Your task to perform on an android device: Is it going to rain this weekend? Image 0: 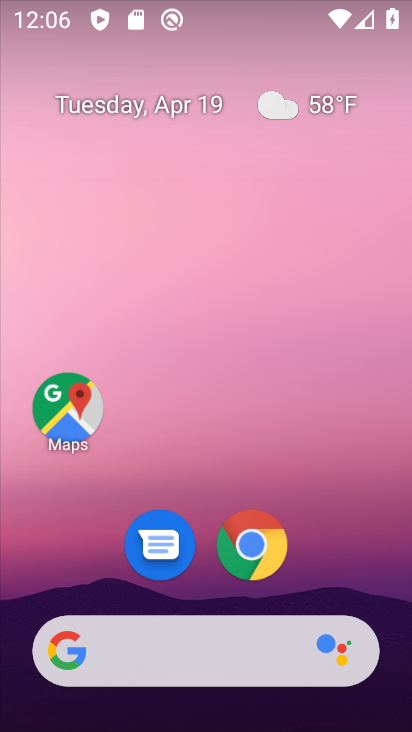
Step 0: drag from (194, 449) to (257, 3)
Your task to perform on an android device: Is it going to rain this weekend? Image 1: 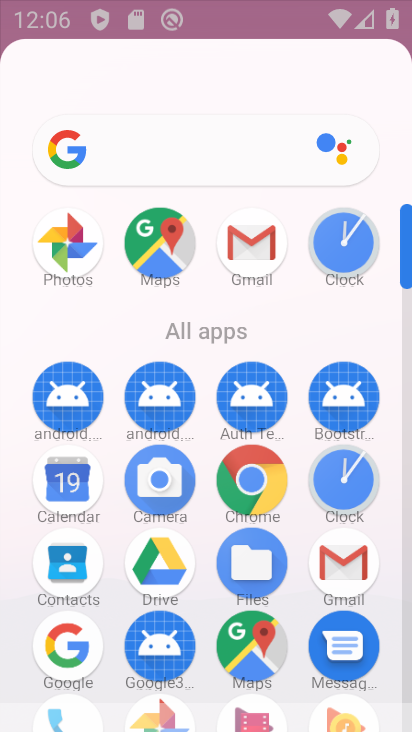
Step 1: click (296, 107)
Your task to perform on an android device: Is it going to rain this weekend? Image 2: 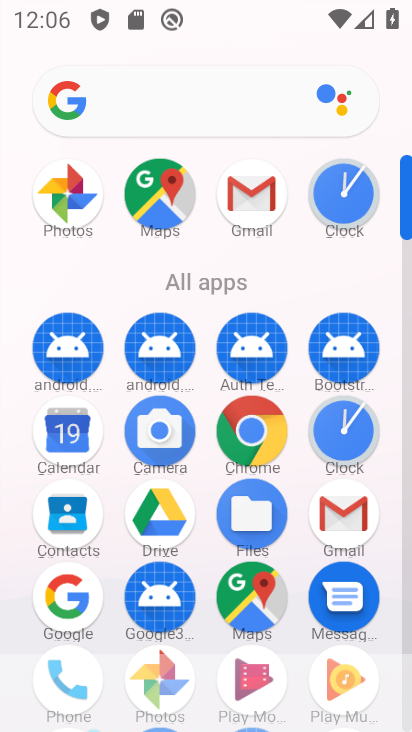
Step 2: press home button
Your task to perform on an android device: Is it going to rain this weekend? Image 3: 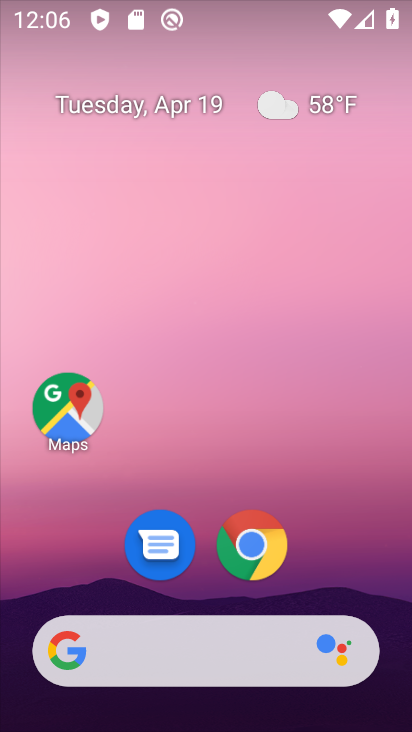
Step 3: click (269, 97)
Your task to perform on an android device: Is it going to rain this weekend? Image 4: 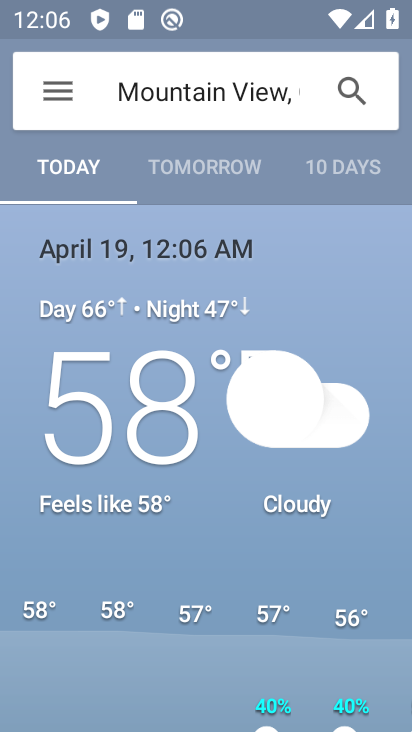
Step 4: click (313, 159)
Your task to perform on an android device: Is it going to rain this weekend? Image 5: 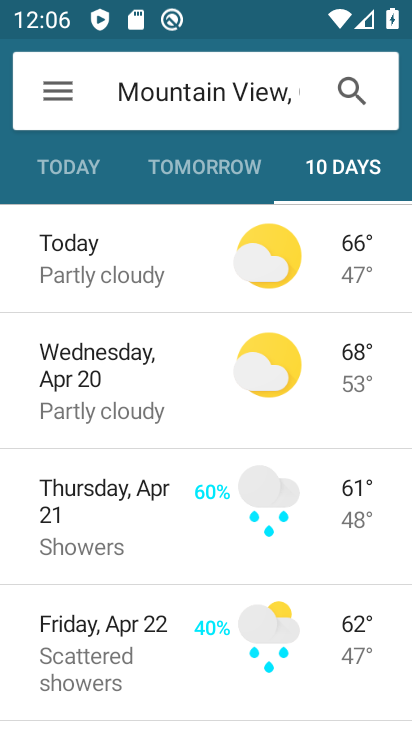
Step 5: task complete